Your task to perform on an android device: turn on sleep mode Image 0: 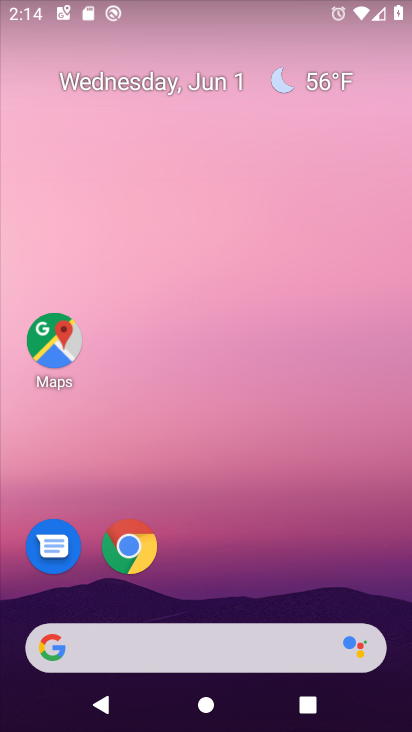
Step 0: drag from (201, 20) to (196, 604)
Your task to perform on an android device: turn on sleep mode Image 1: 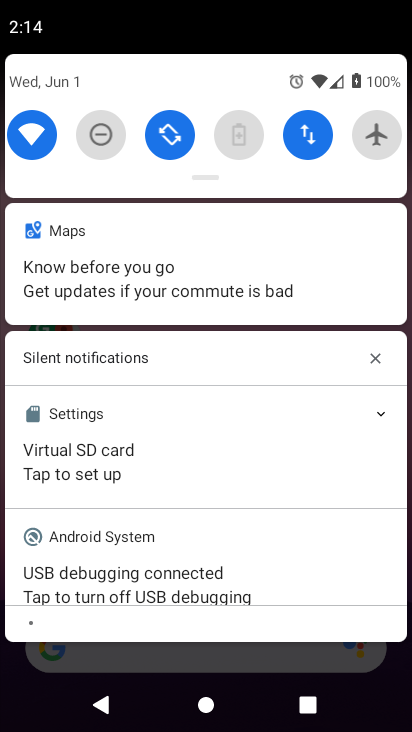
Step 1: task complete